Your task to perform on an android device: Do I have any events today? Image 0: 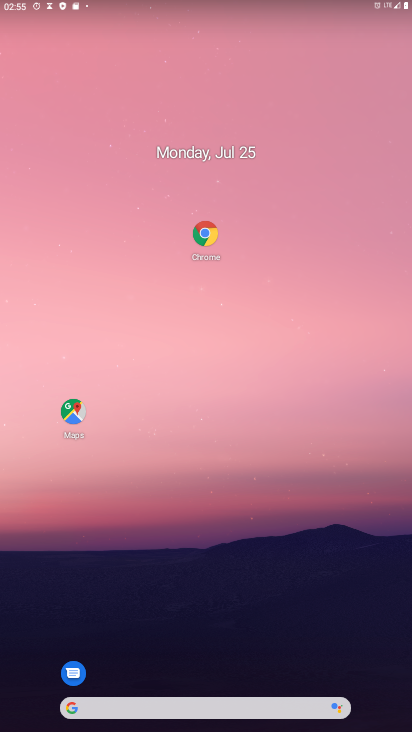
Step 0: drag from (223, 688) to (299, 25)
Your task to perform on an android device: Do I have any events today? Image 1: 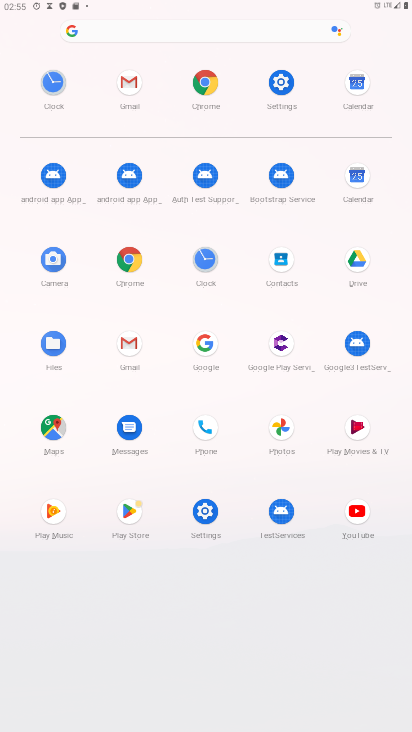
Step 1: click (354, 179)
Your task to perform on an android device: Do I have any events today? Image 2: 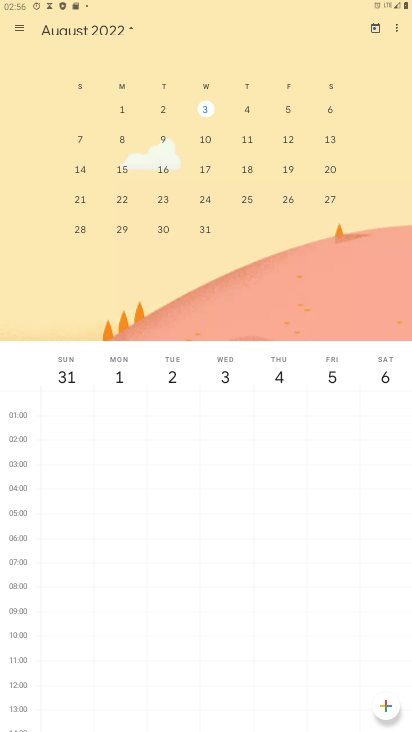
Step 2: drag from (53, 233) to (350, 217)
Your task to perform on an android device: Do I have any events today? Image 3: 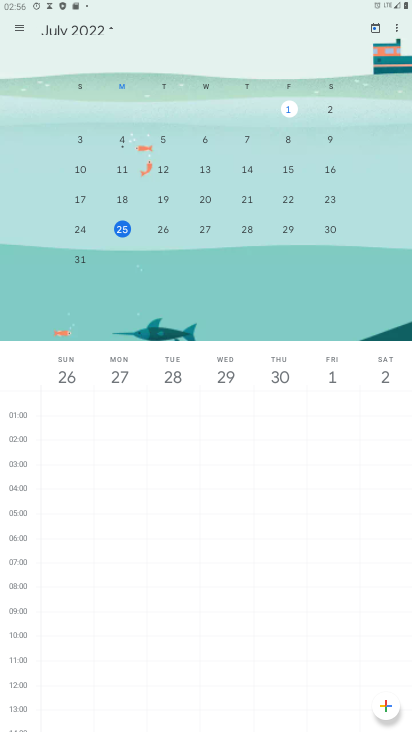
Step 3: click (125, 228)
Your task to perform on an android device: Do I have any events today? Image 4: 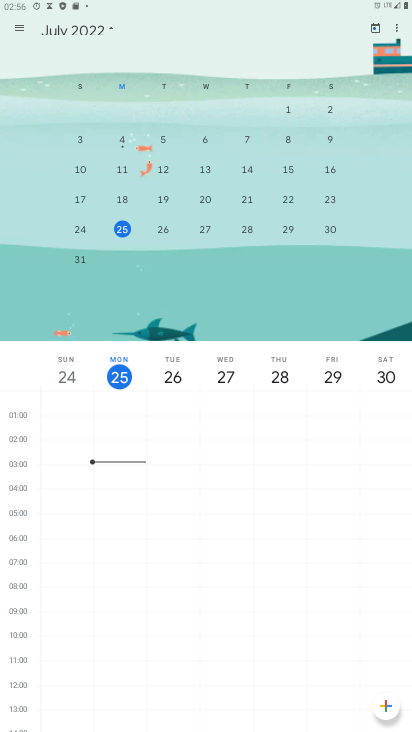
Step 4: task complete